Your task to perform on an android device: Empty the shopping cart on costco. Search for "dell xps" on costco, select the first entry, add it to the cart, then select checkout. Image 0: 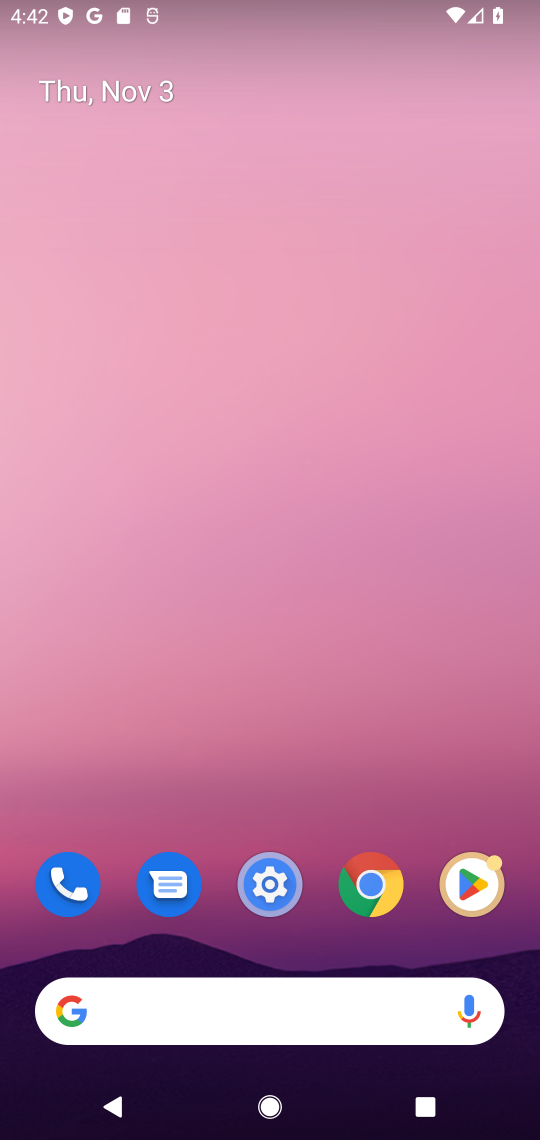
Step 0: click (122, 1008)
Your task to perform on an android device: Empty the shopping cart on costco. Search for "dell xps" on costco, select the first entry, add it to the cart, then select checkout. Image 1: 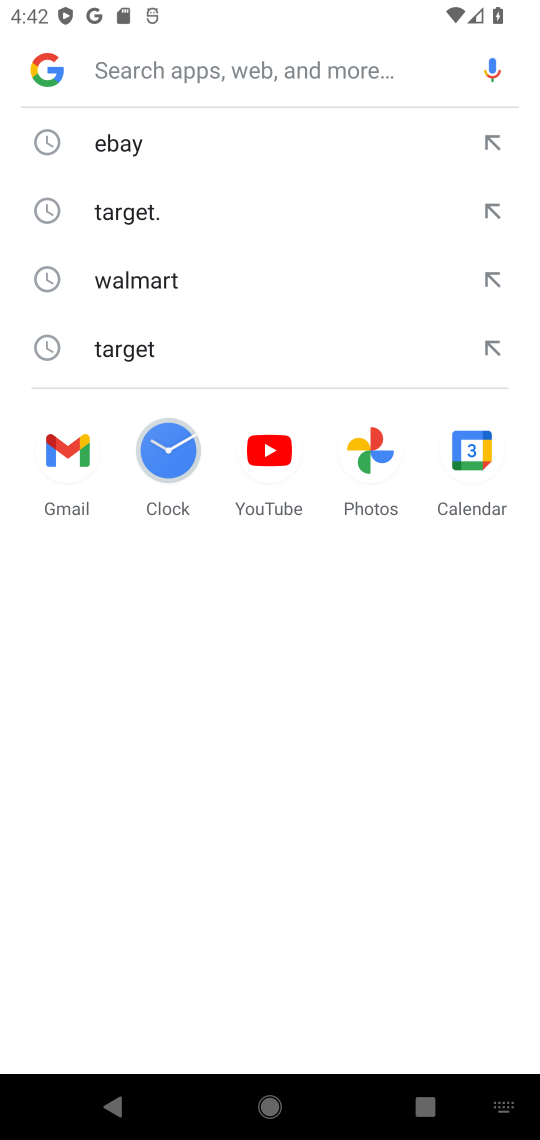
Step 1: press enter
Your task to perform on an android device: Empty the shopping cart on costco. Search for "dell xps" on costco, select the first entry, add it to the cart, then select checkout. Image 2: 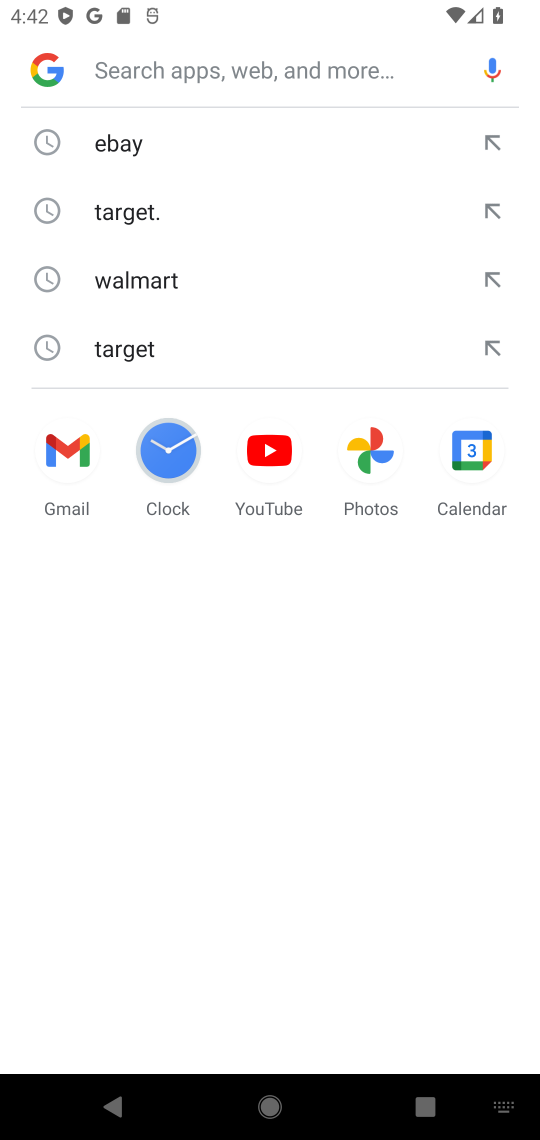
Step 2: type "costco"
Your task to perform on an android device: Empty the shopping cart on costco. Search for "dell xps" on costco, select the first entry, add it to the cart, then select checkout. Image 3: 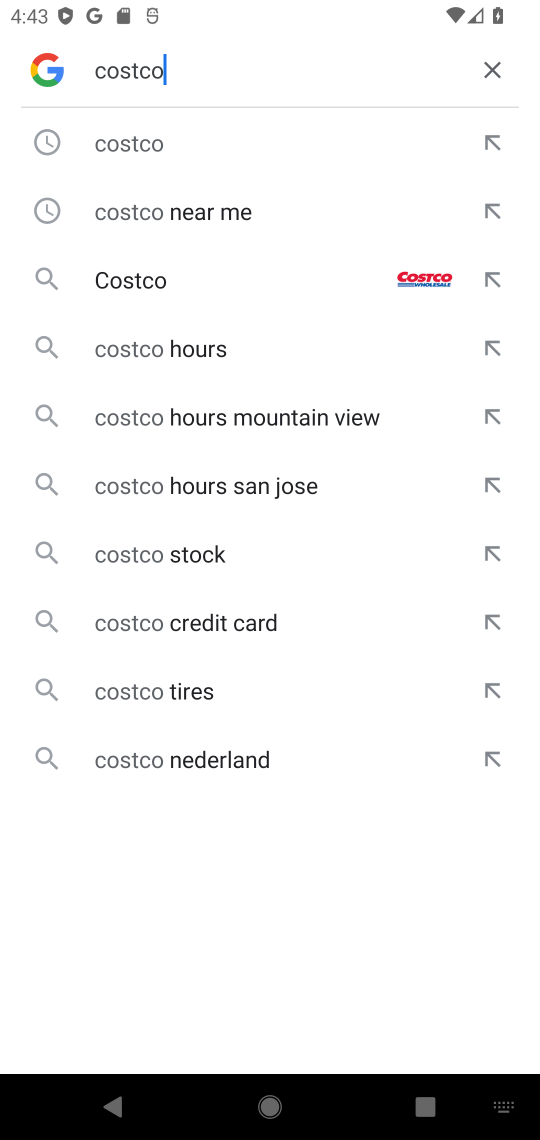
Step 3: press enter
Your task to perform on an android device: Empty the shopping cart on costco. Search for "dell xps" on costco, select the first entry, add it to the cart, then select checkout. Image 4: 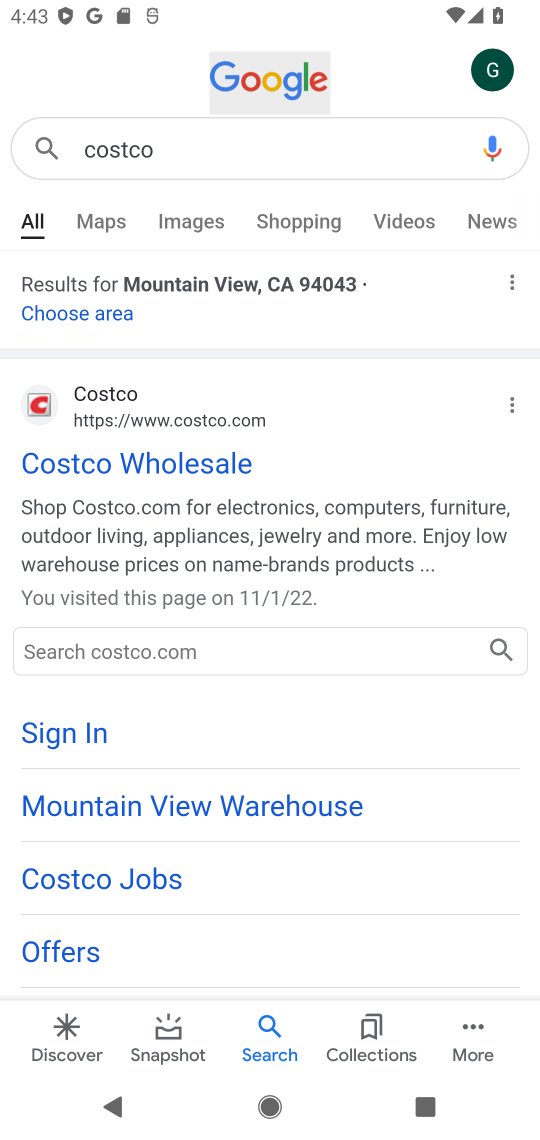
Step 4: click (152, 467)
Your task to perform on an android device: Empty the shopping cart on costco. Search for "dell xps" on costco, select the first entry, add it to the cart, then select checkout. Image 5: 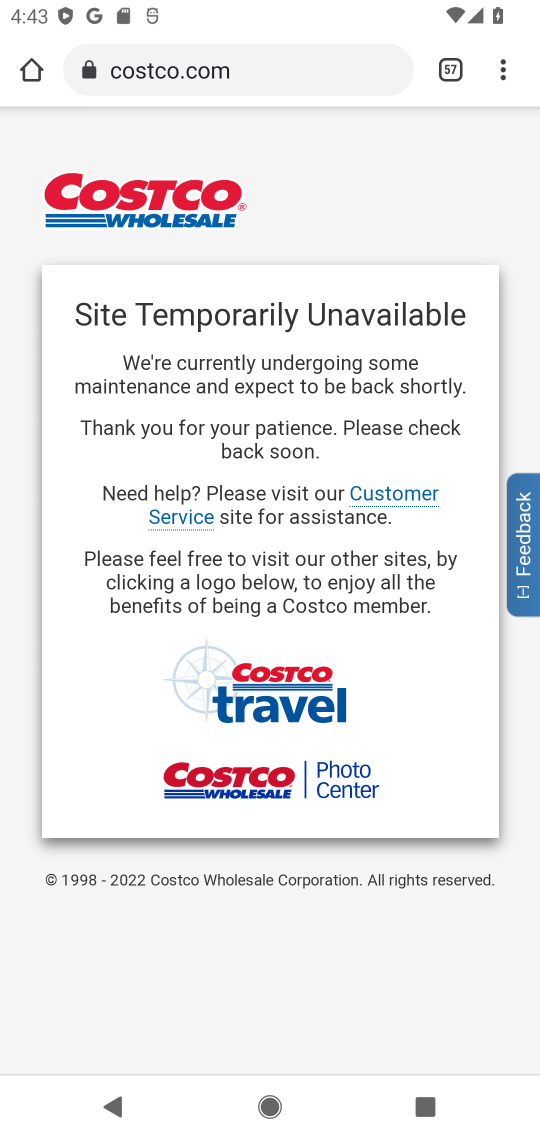
Step 5: task complete